Your task to perform on an android device: toggle show notifications on the lock screen Image 0: 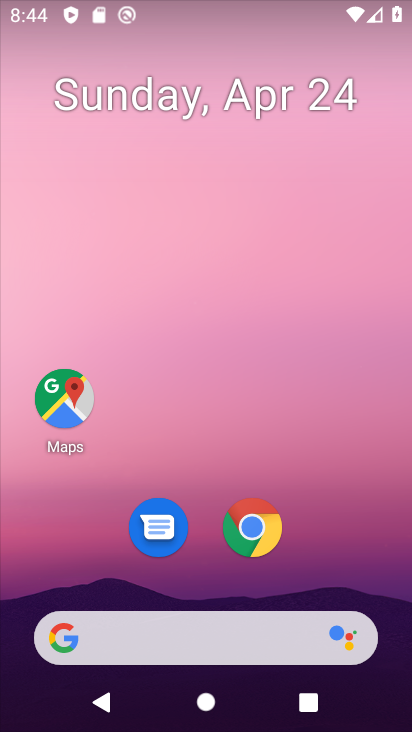
Step 0: drag from (349, 514) to (312, 85)
Your task to perform on an android device: toggle show notifications on the lock screen Image 1: 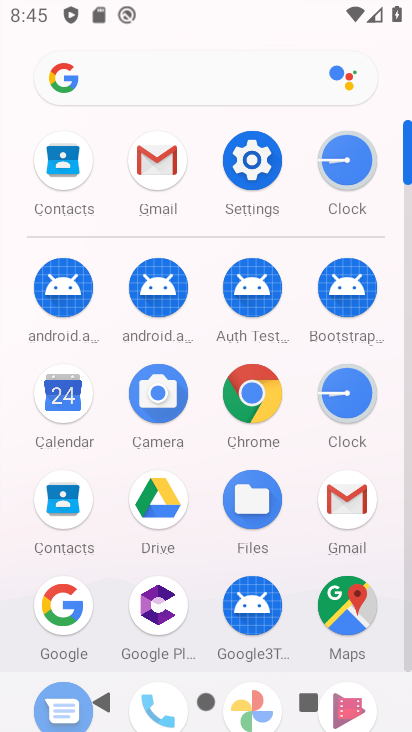
Step 1: click (257, 153)
Your task to perform on an android device: toggle show notifications on the lock screen Image 2: 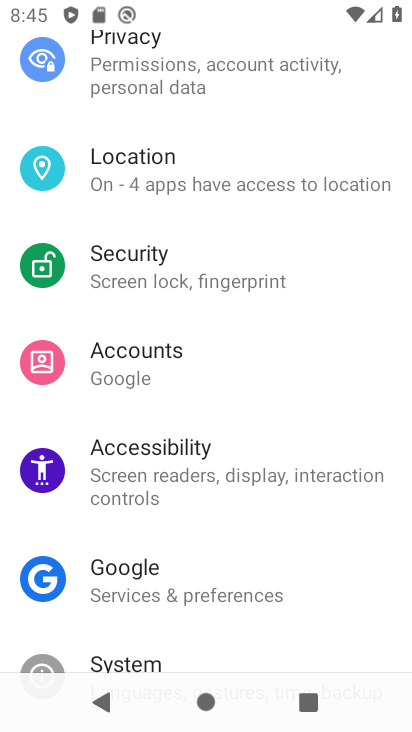
Step 2: drag from (299, 261) to (325, 534)
Your task to perform on an android device: toggle show notifications on the lock screen Image 3: 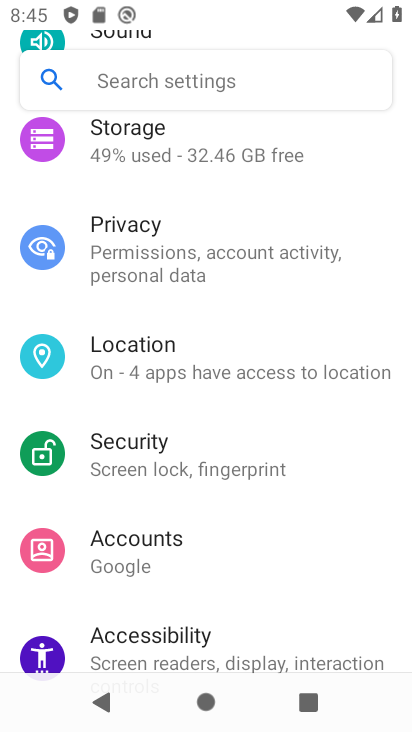
Step 3: drag from (235, 202) to (257, 487)
Your task to perform on an android device: toggle show notifications on the lock screen Image 4: 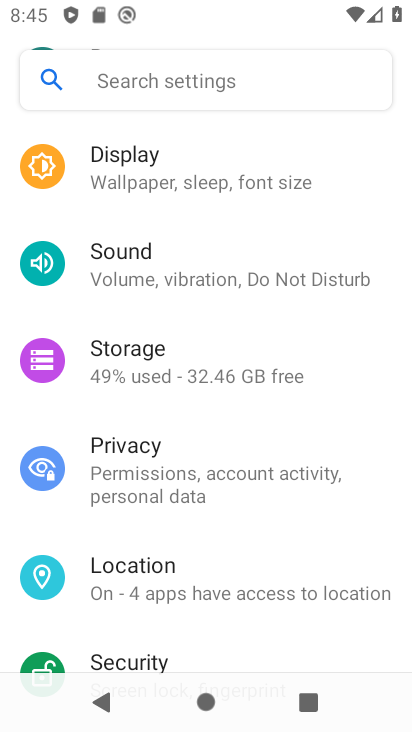
Step 4: drag from (222, 240) to (228, 504)
Your task to perform on an android device: toggle show notifications on the lock screen Image 5: 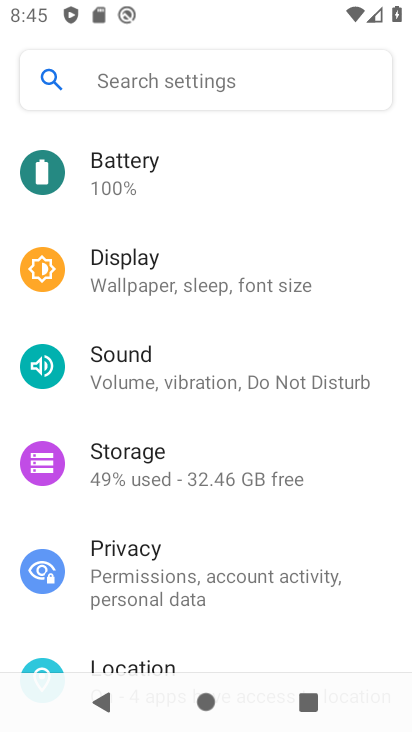
Step 5: drag from (206, 202) to (207, 487)
Your task to perform on an android device: toggle show notifications on the lock screen Image 6: 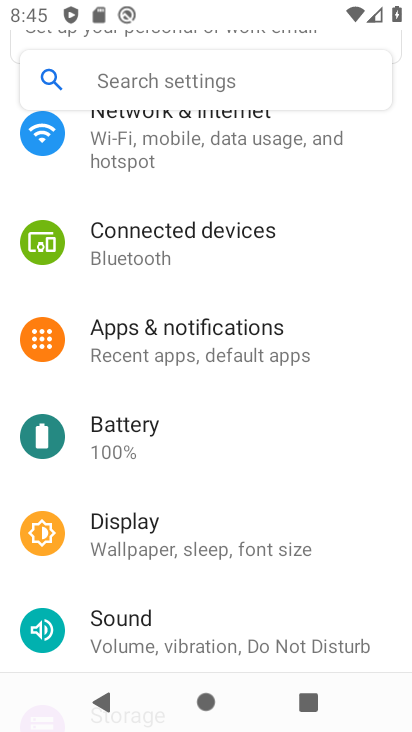
Step 6: click (200, 346)
Your task to perform on an android device: toggle show notifications on the lock screen Image 7: 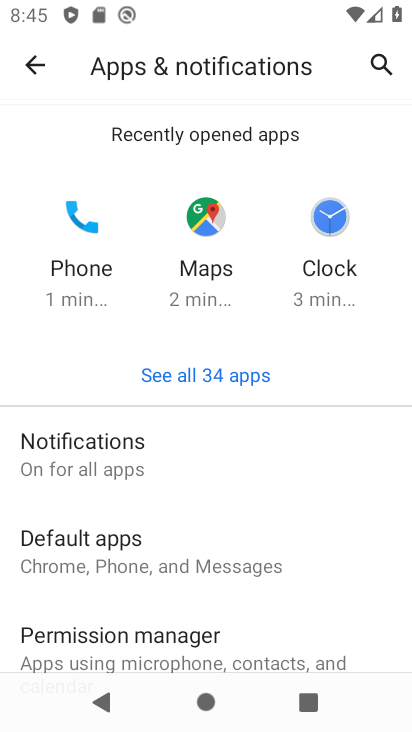
Step 7: drag from (316, 600) to (330, 268)
Your task to perform on an android device: toggle show notifications on the lock screen Image 8: 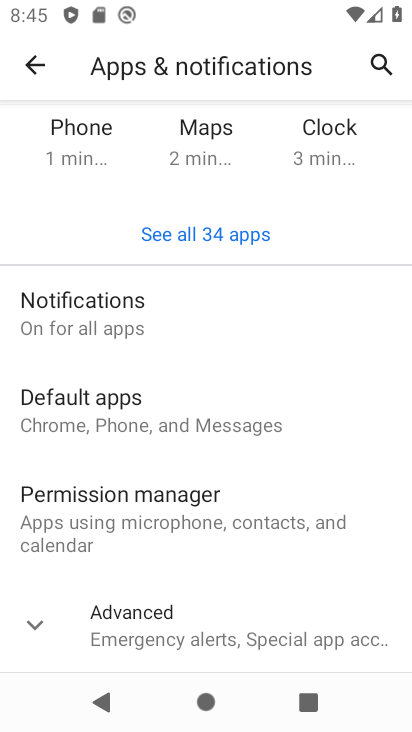
Step 8: click (139, 329)
Your task to perform on an android device: toggle show notifications on the lock screen Image 9: 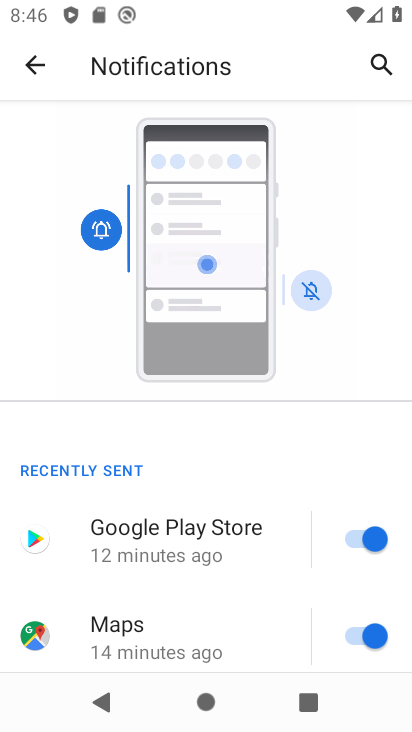
Step 9: drag from (217, 562) to (233, 265)
Your task to perform on an android device: toggle show notifications on the lock screen Image 10: 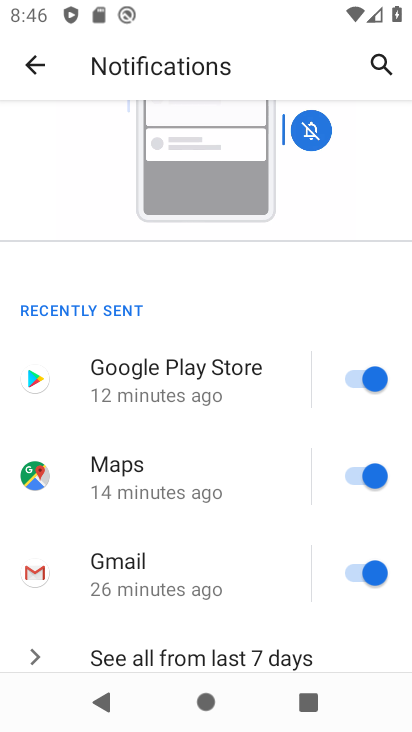
Step 10: drag from (228, 604) to (211, 280)
Your task to perform on an android device: toggle show notifications on the lock screen Image 11: 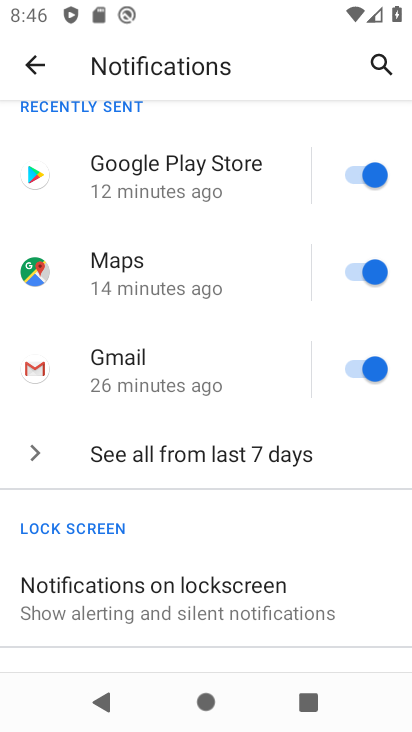
Step 11: click (150, 607)
Your task to perform on an android device: toggle show notifications on the lock screen Image 12: 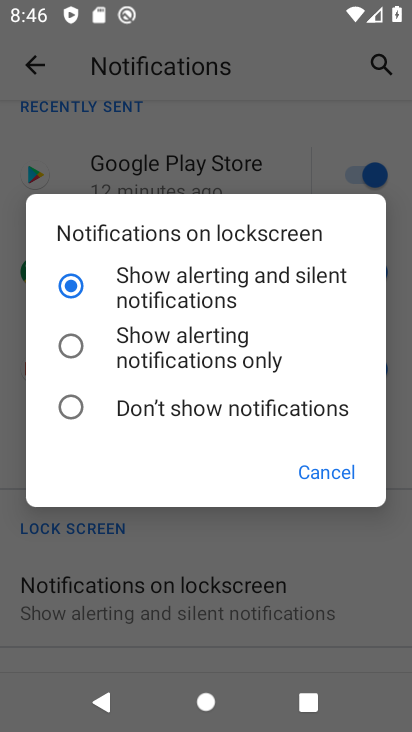
Step 12: click (70, 347)
Your task to perform on an android device: toggle show notifications on the lock screen Image 13: 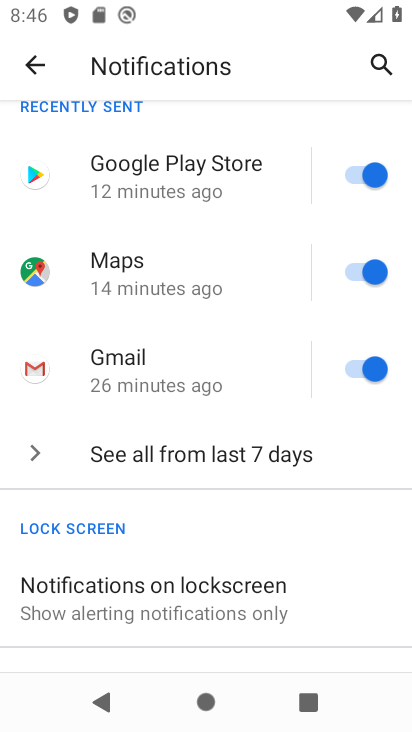
Step 13: task complete